Your task to perform on an android device: Go to network settings Image 0: 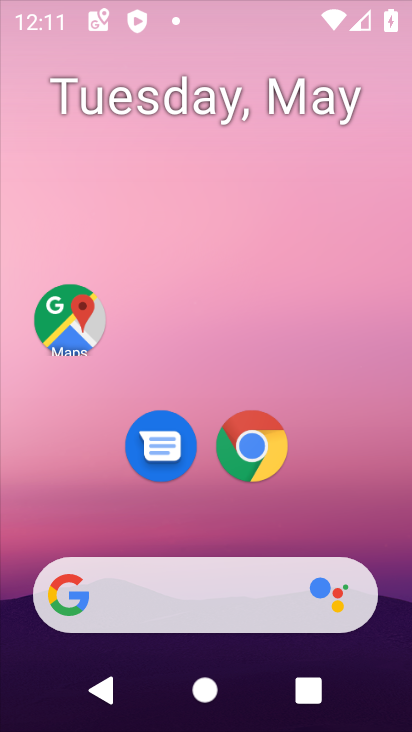
Step 0: drag from (303, 461) to (331, 103)
Your task to perform on an android device: Go to network settings Image 1: 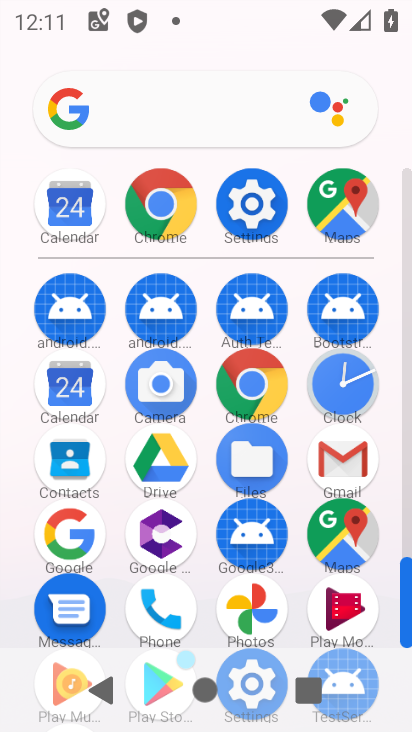
Step 1: click (175, 211)
Your task to perform on an android device: Go to network settings Image 2: 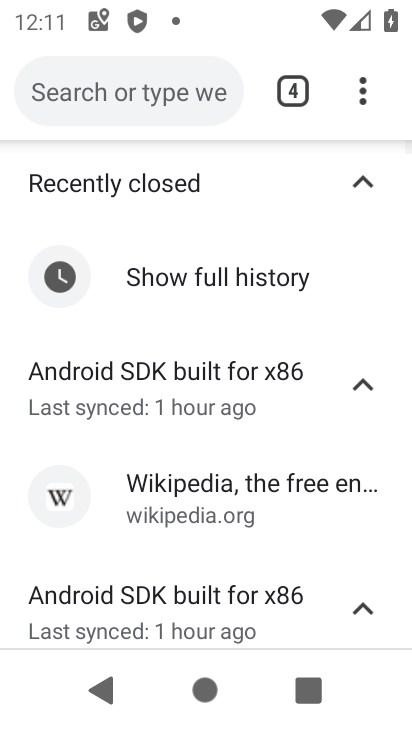
Step 2: press home button
Your task to perform on an android device: Go to network settings Image 3: 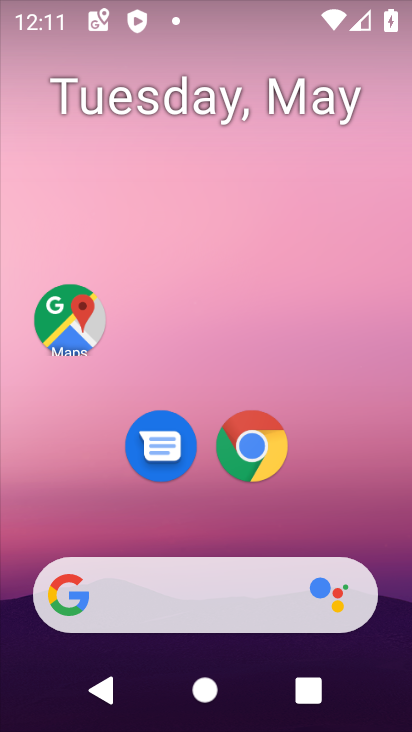
Step 3: drag from (353, 394) to (376, 34)
Your task to perform on an android device: Go to network settings Image 4: 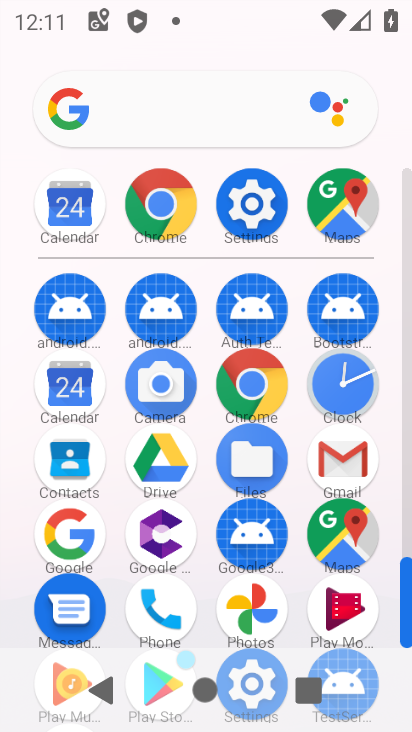
Step 4: click (253, 199)
Your task to perform on an android device: Go to network settings Image 5: 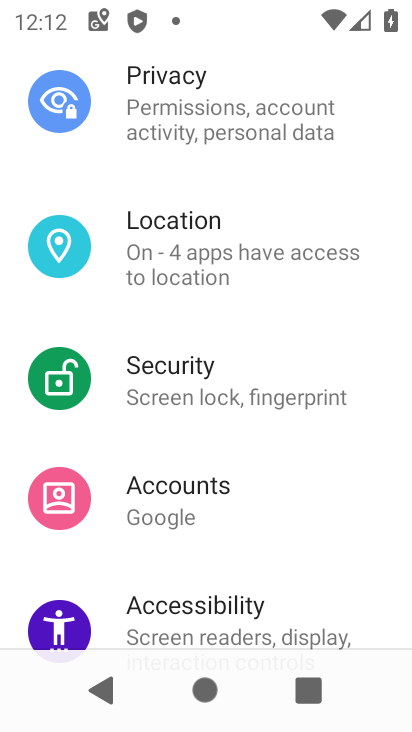
Step 5: drag from (238, 175) to (232, 637)
Your task to perform on an android device: Go to network settings Image 6: 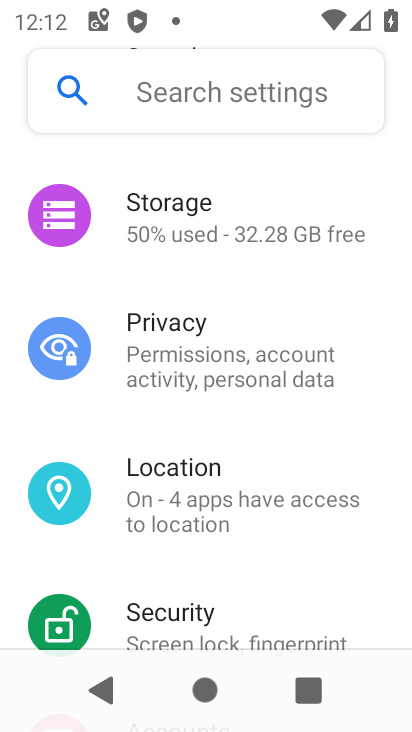
Step 6: drag from (235, 209) to (237, 692)
Your task to perform on an android device: Go to network settings Image 7: 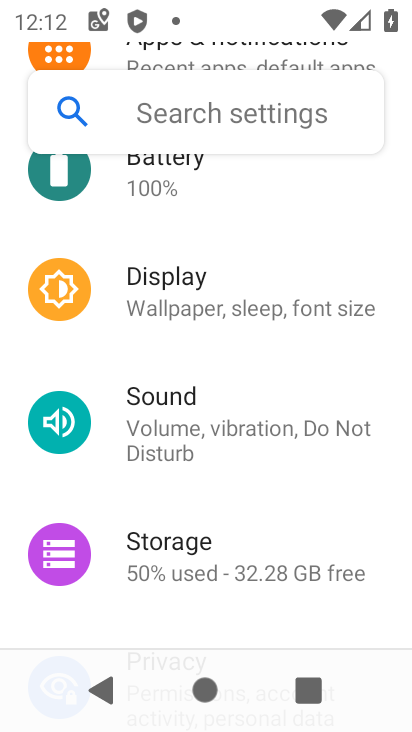
Step 7: drag from (221, 214) to (206, 651)
Your task to perform on an android device: Go to network settings Image 8: 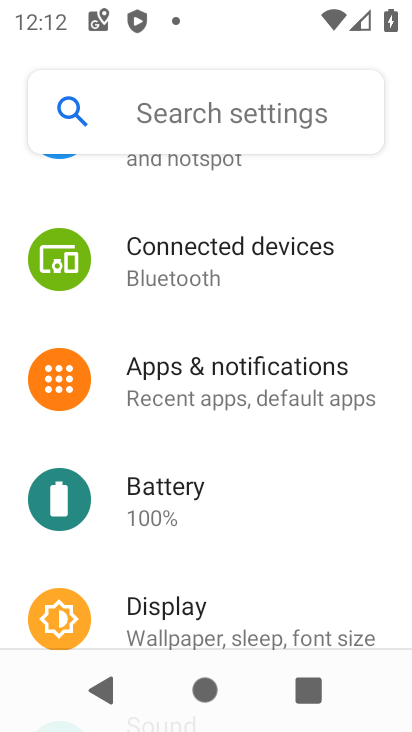
Step 8: drag from (242, 203) to (248, 683)
Your task to perform on an android device: Go to network settings Image 9: 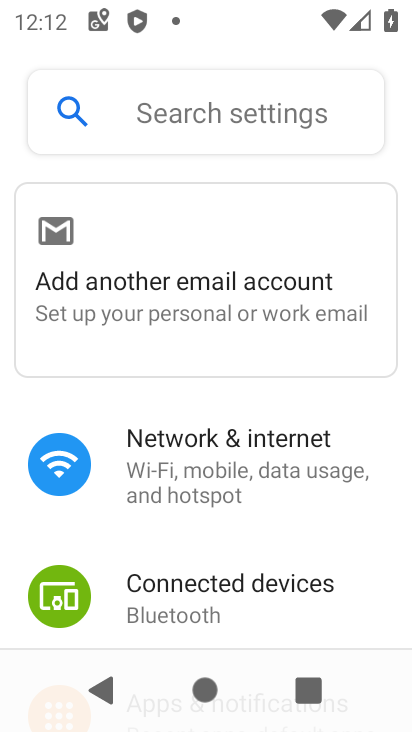
Step 9: click (192, 467)
Your task to perform on an android device: Go to network settings Image 10: 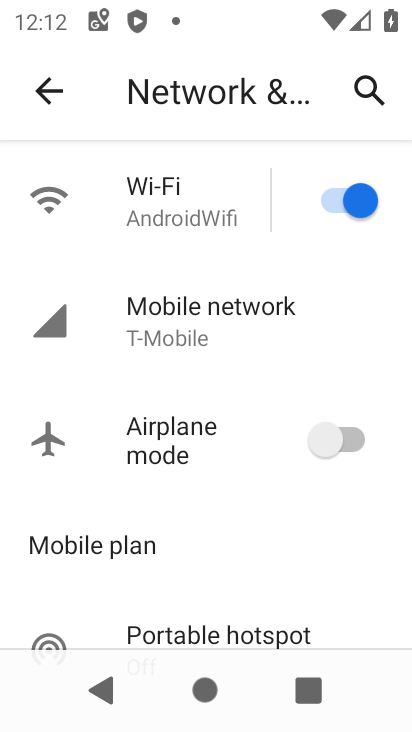
Step 10: task complete